Your task to perform on an android device: Open the map Image 0: 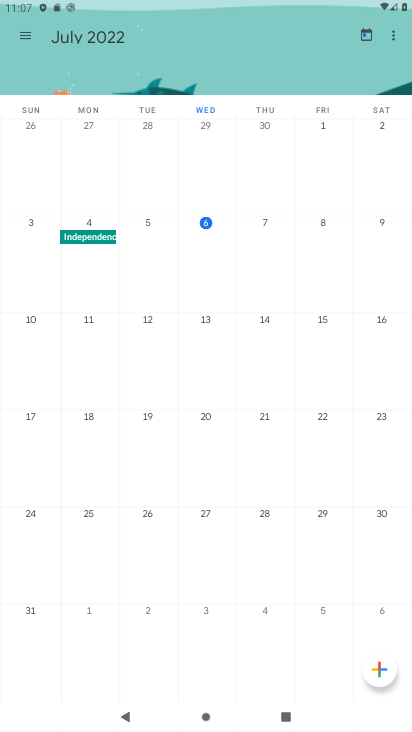
Step 0: press home button
Your task to perform on an android device: Open the map Image 1: 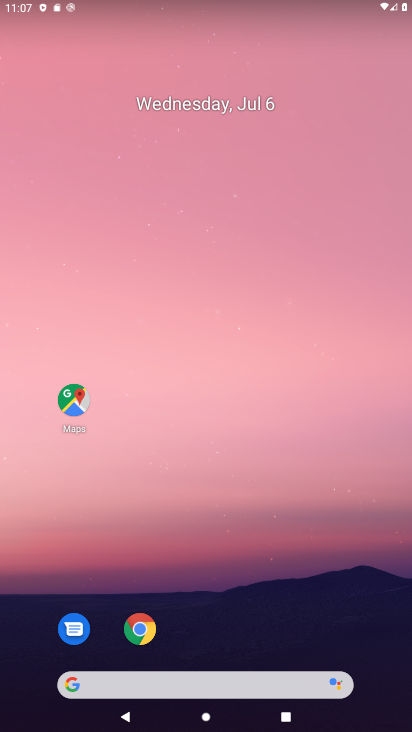
Step 1: drag from (374, 630) to (382, 217)
Your task to perform on an android device: Open the map Image 2: 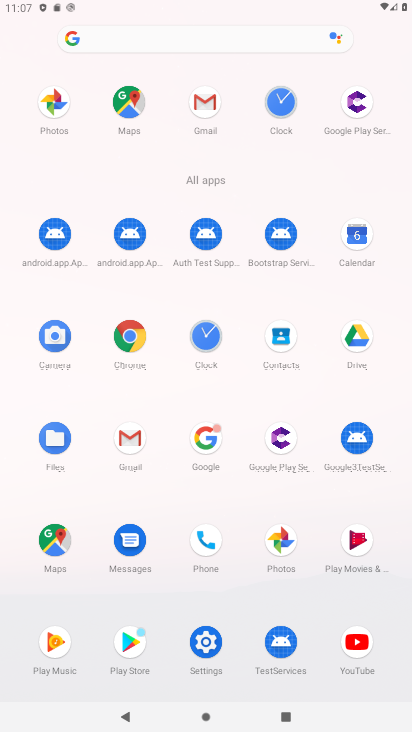
Step 2: click (61, 539)
Your task to perform on an android device: Open the map Image 3: 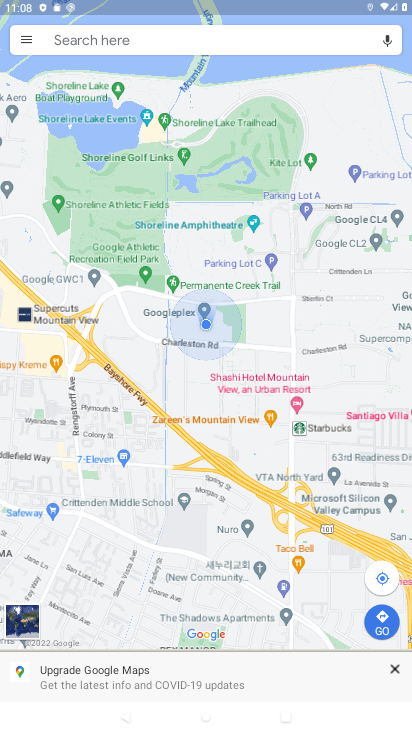
Step 3: task complete